Your task to perform on an android device: turn off data saver in the chrome app Image 0: 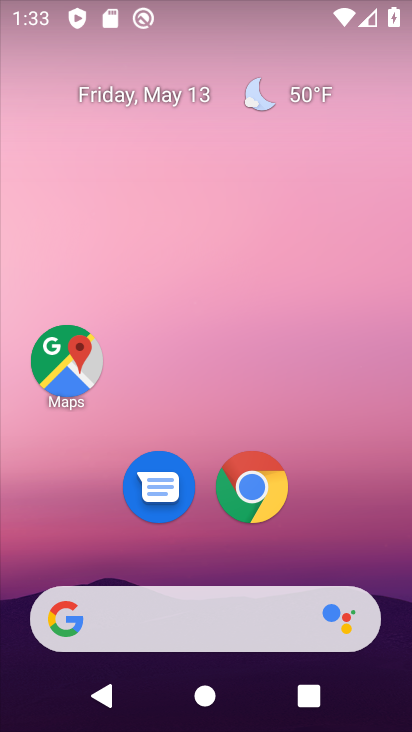
Step 0: drag from (92, 571) to (176, 146)
Your task to perform on an android device: turn off data saver in the chrome app Image 1: 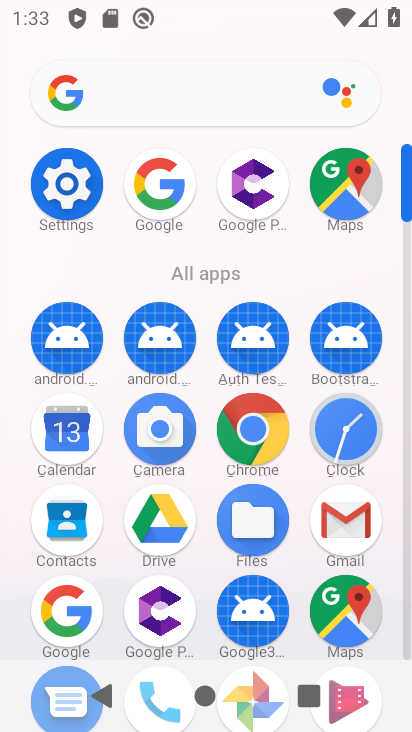
Step 1: drag from (153, 558) to (201, 304)
Your task to perform on an android device: turn off data saver in the chrome app Image 2: 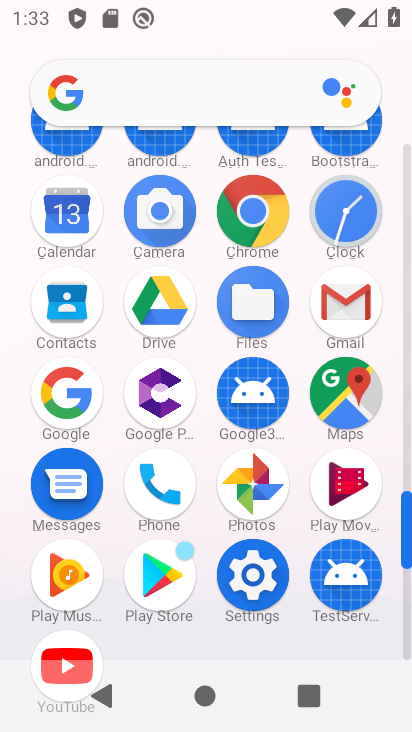
Step 2: click (251, 195)
Your task to perform on an android device: turn off data saver in the chrome app Image 3: 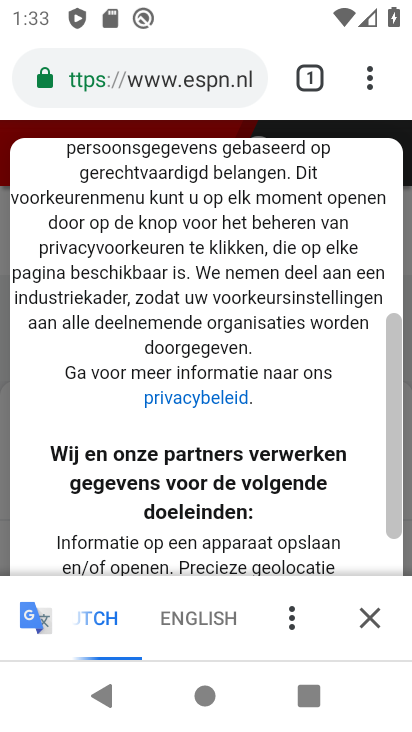
Step 3: drag from (358, 90) to (262, 562)
Your task to perform on an android device: turn off data saver in the chrome app Image 4: 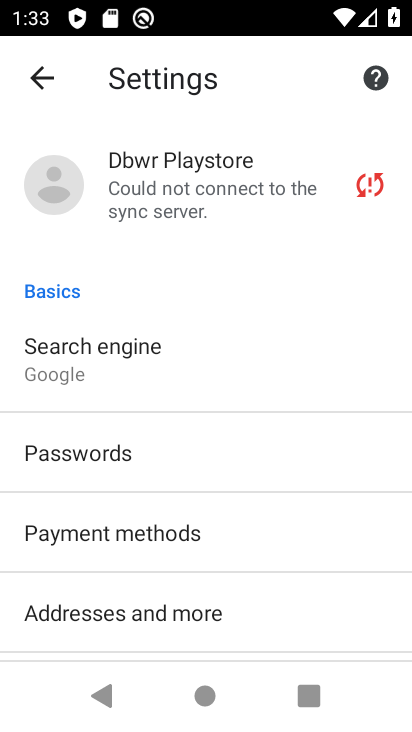
Step 4: drag from (174, 586) to (217, 247)
Your task to perform on an android device: turn off data saver in the chrome app Image 5: 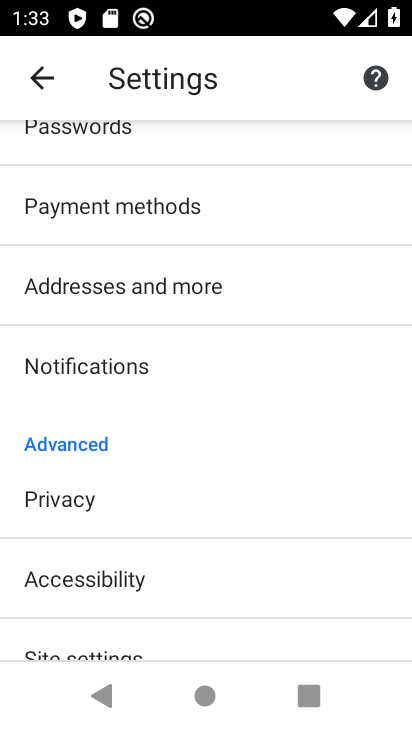
Step 5: drag from (129, 582) to (203, 245)
Your task to perform on an android device: turn off data saver in the chrome app Image 6: 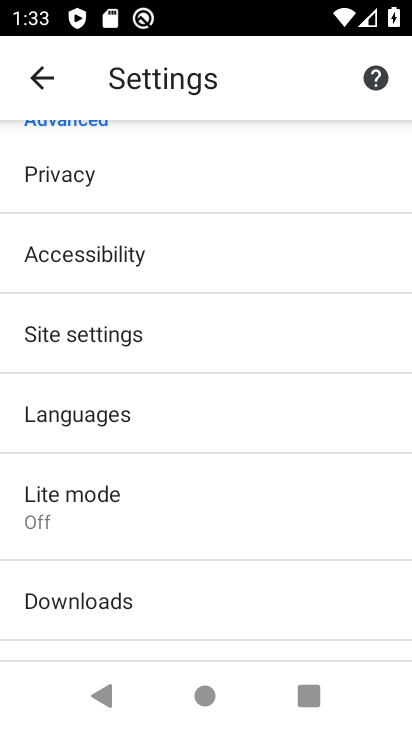
Step 6: click (122, 510)
Your task to perform on an android device: turn off data saver in the chrome app Image 7: 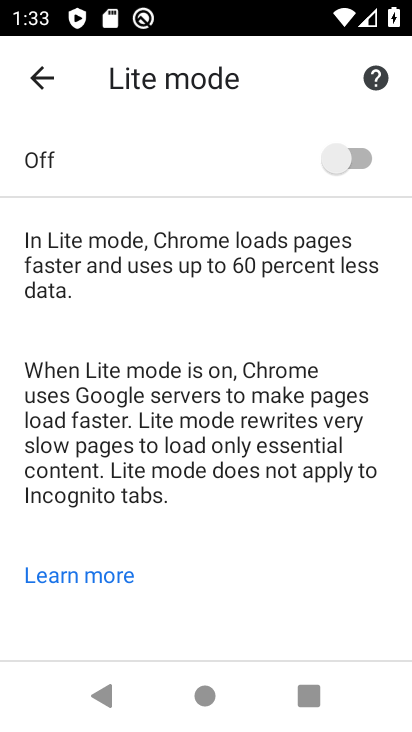
Step 7: task complete